Your task to perform on an android device: turn pop-ups on in chrome Image 0: 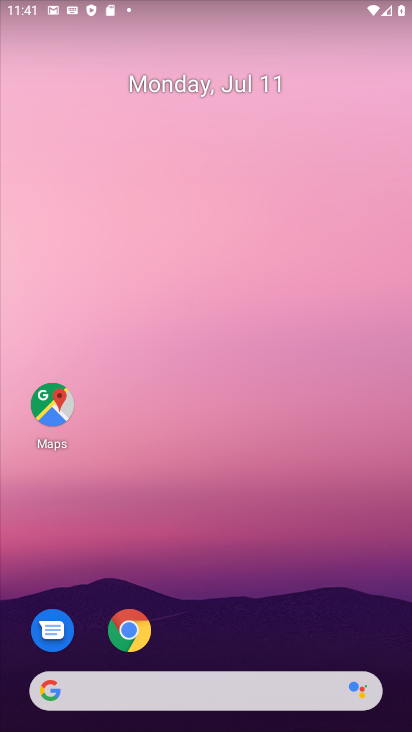
Step 0: drag from (302, 627) to (234, 119)
Your task to perform on an android device: turn pop-ups on in chrome Image 1: 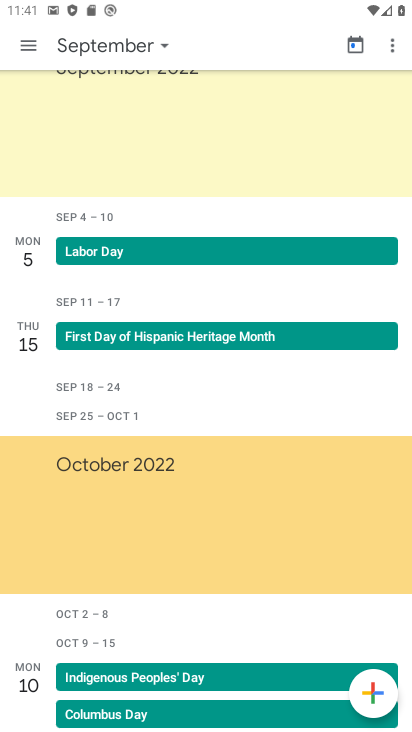
Step 1: press home button
Your task to perform on an android device: turn pop-ups on in chrome Image 2: 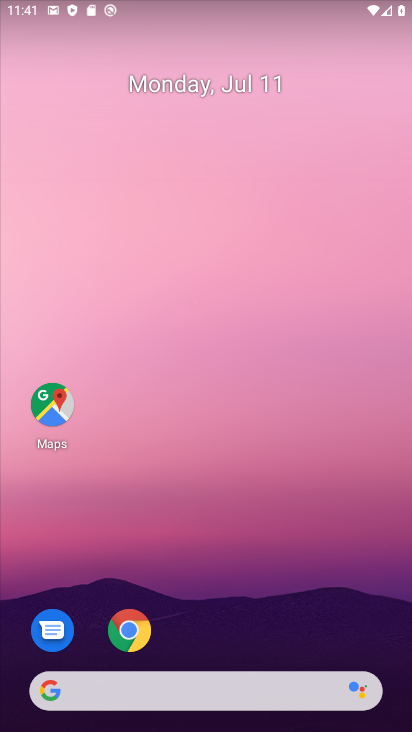
Step 2: click (136, 625)
Your task to perform on an android device: turn pop-ups on in chrome Image 3: 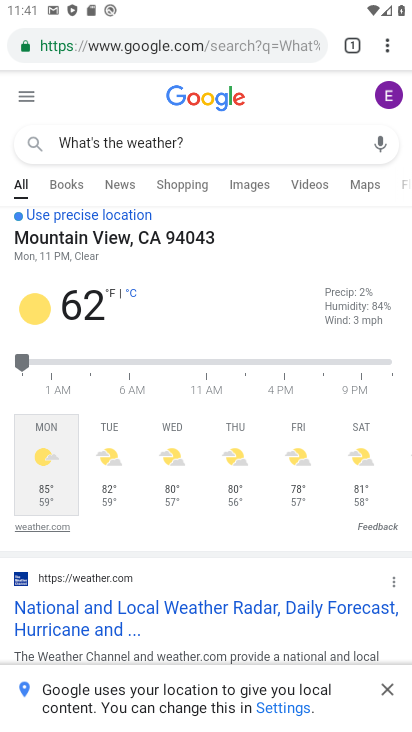
Step 3: click (385, 46)
Your task to perform on an android device: turn pop-ups on in chrome Image 4: 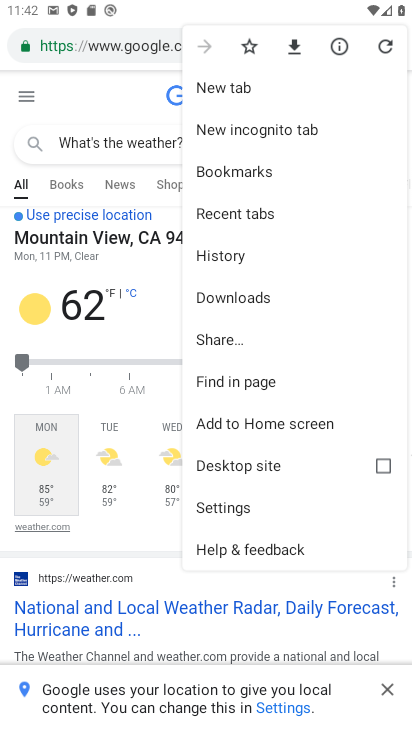
Step 4: click (273, 506)
Your task to perform on an android device: turn pop-ups on in chrome Image 5: 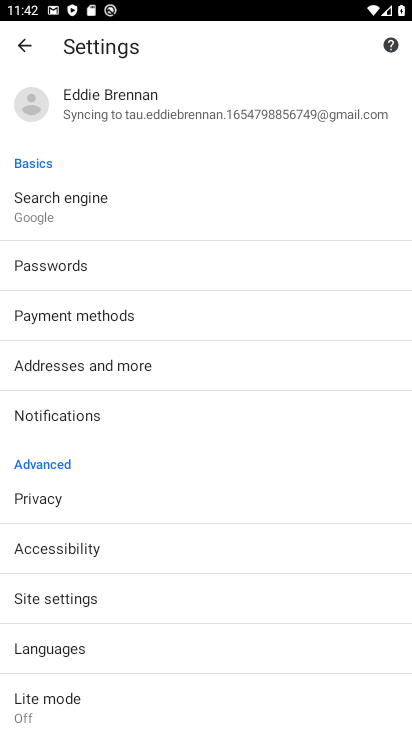
Step 5: click (208, 602)
Your task to perform on an android device: turn pop-ups on in chrome Image 6: 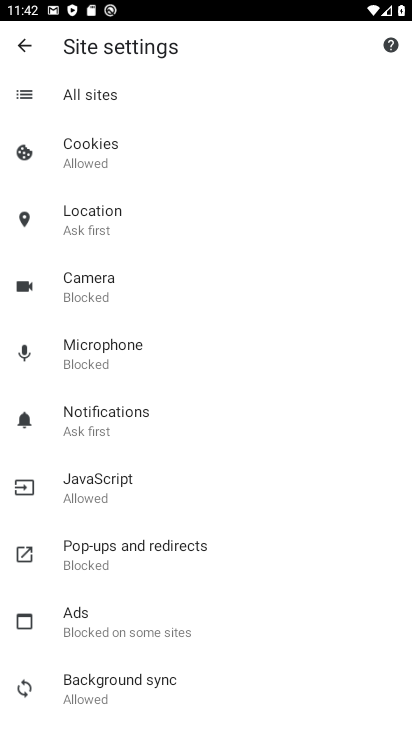
Step 6: click (207, 553)
Your task to perform on an android device: turn pop-ups on in chrome Image 7: 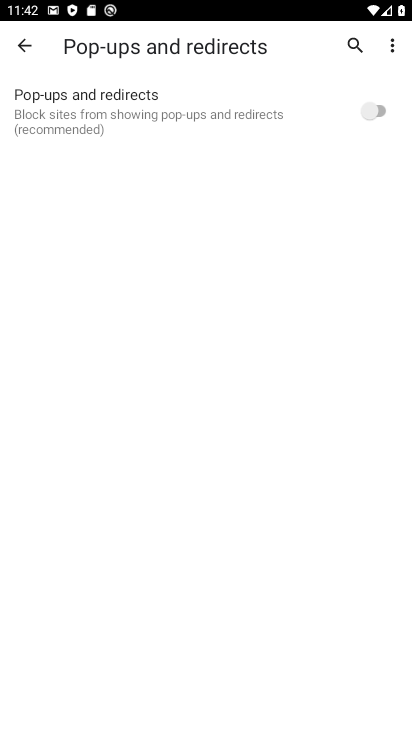
Step 7: click (378, 112)
Your task to perform on an android device: turn pop-ups on in chrome Image 8: 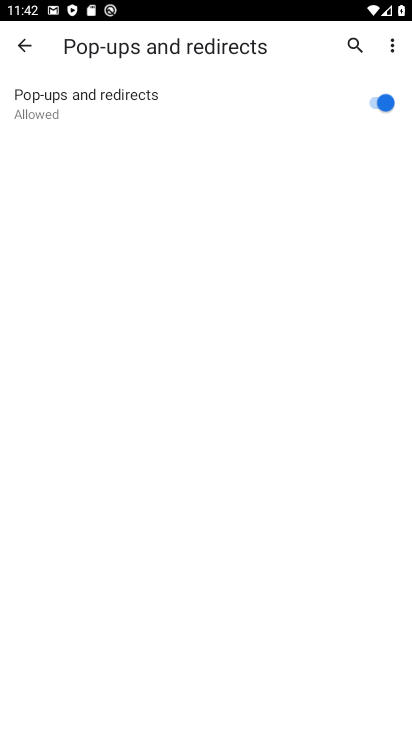
Step 8: task complete